Your task to perform on an android device: toggle notifications settings in the gmail app Image 0: 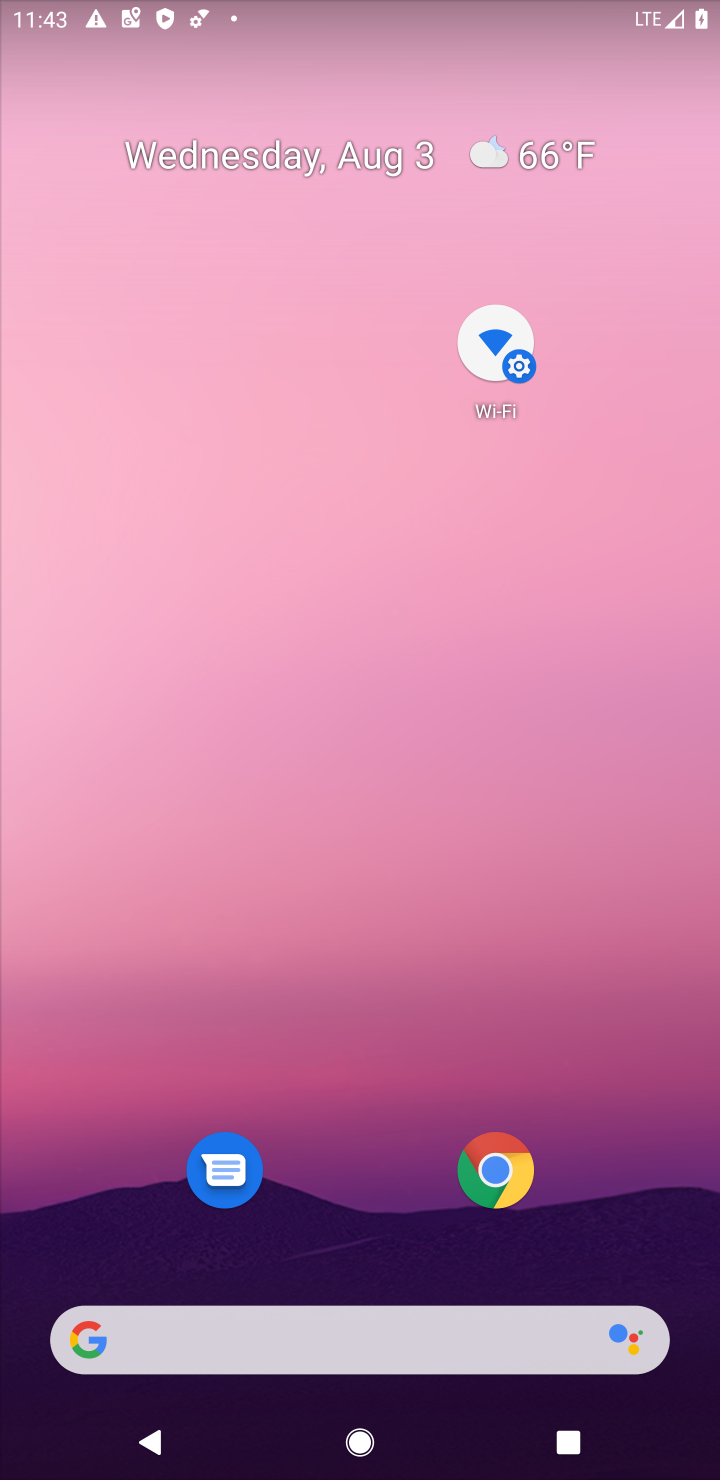
Step 0: click (533, 335)
Your task to perform on an android device: toggle notifications settings in the gmail app Image 1: 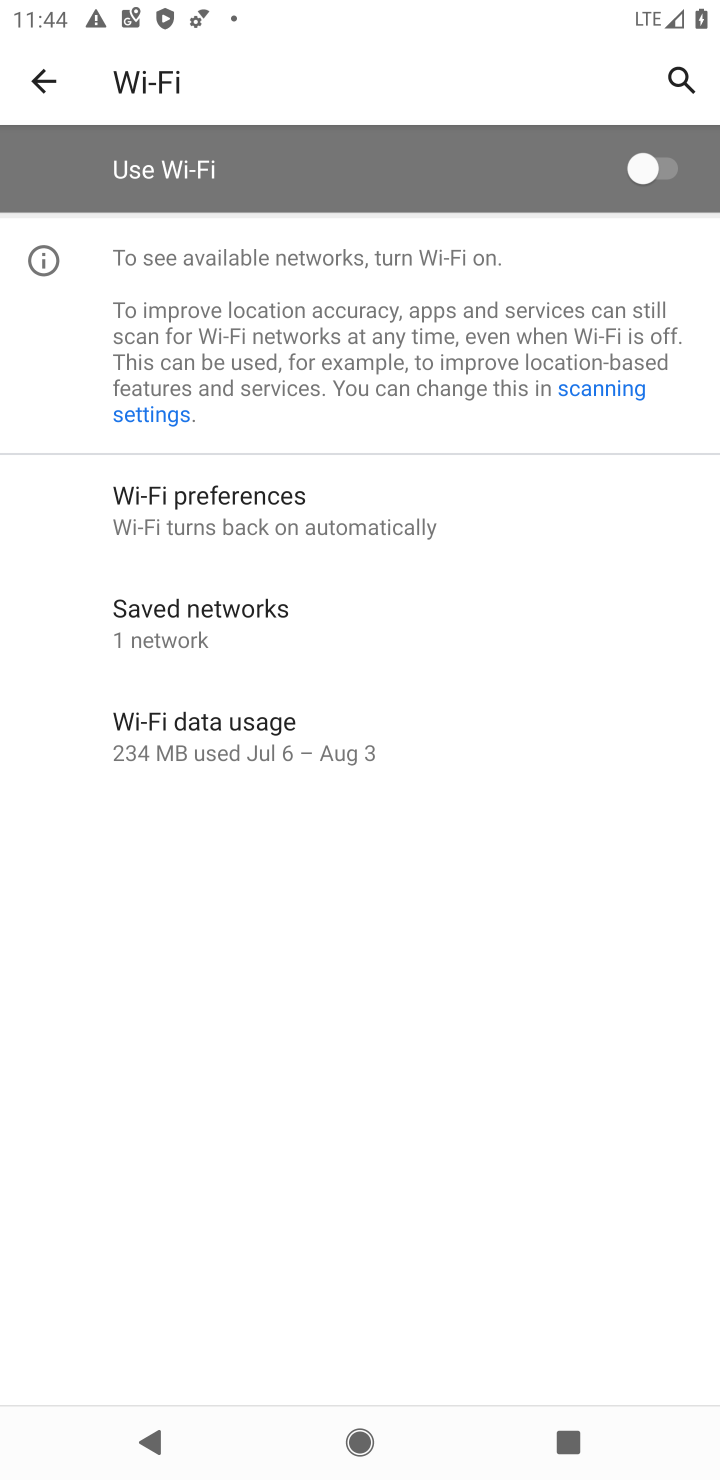
Step 1: drag from (401, 1205) to (417, 379)
Your task to perform on an android device: toggle notifications settings in the gmail app Image 2: 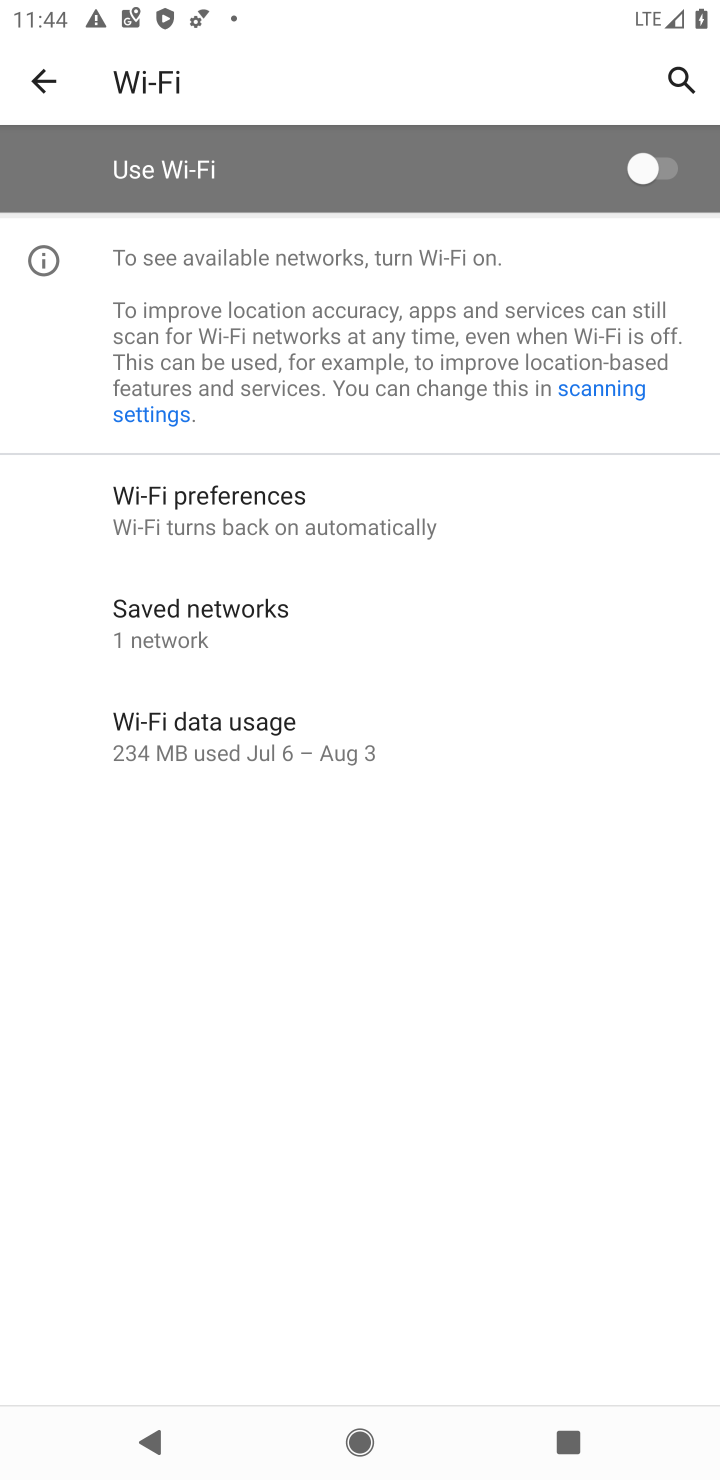
Step 2: press home button
Your task to perform on an android device: toggle notifications settings in the gmail app Image 3: 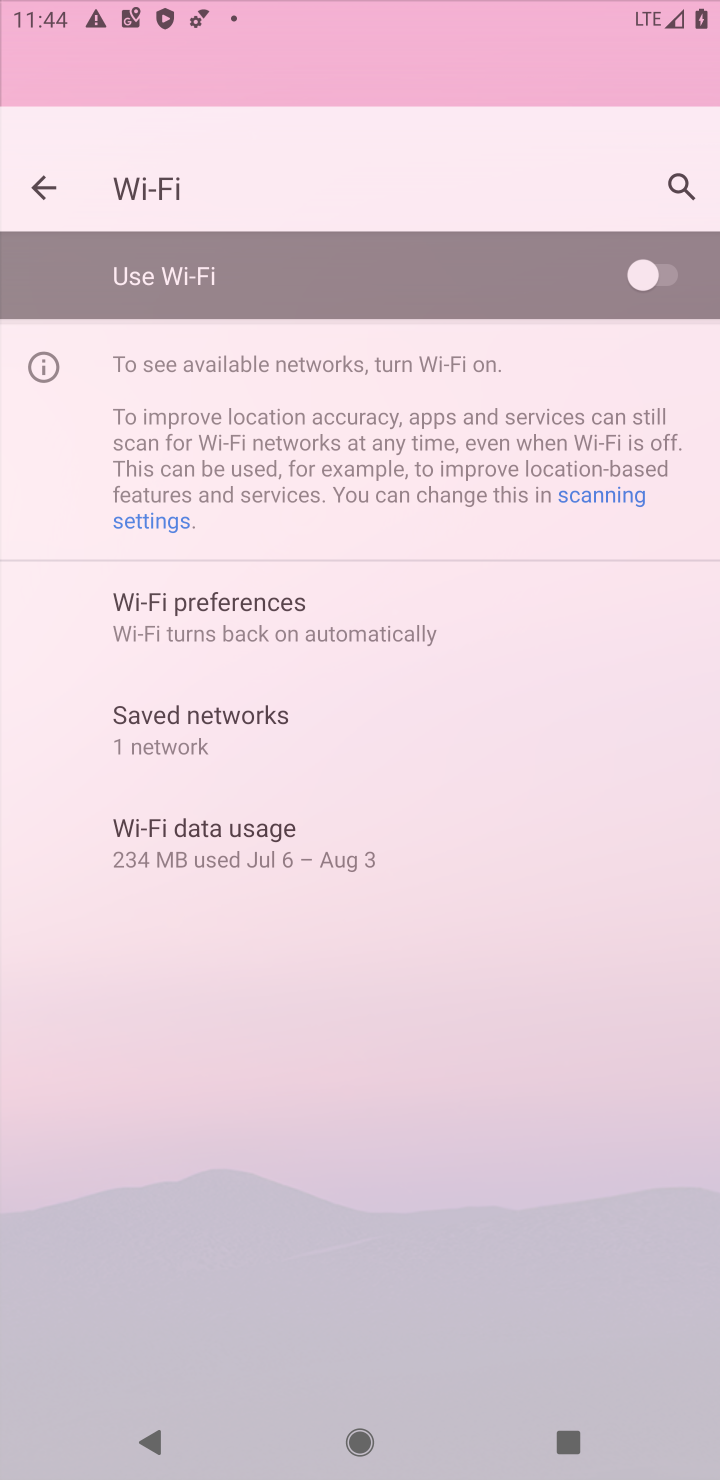
Step 3: click (337, 276)
Your task to perform on an android device: toggle notifications settings in the gmail app Image 4: 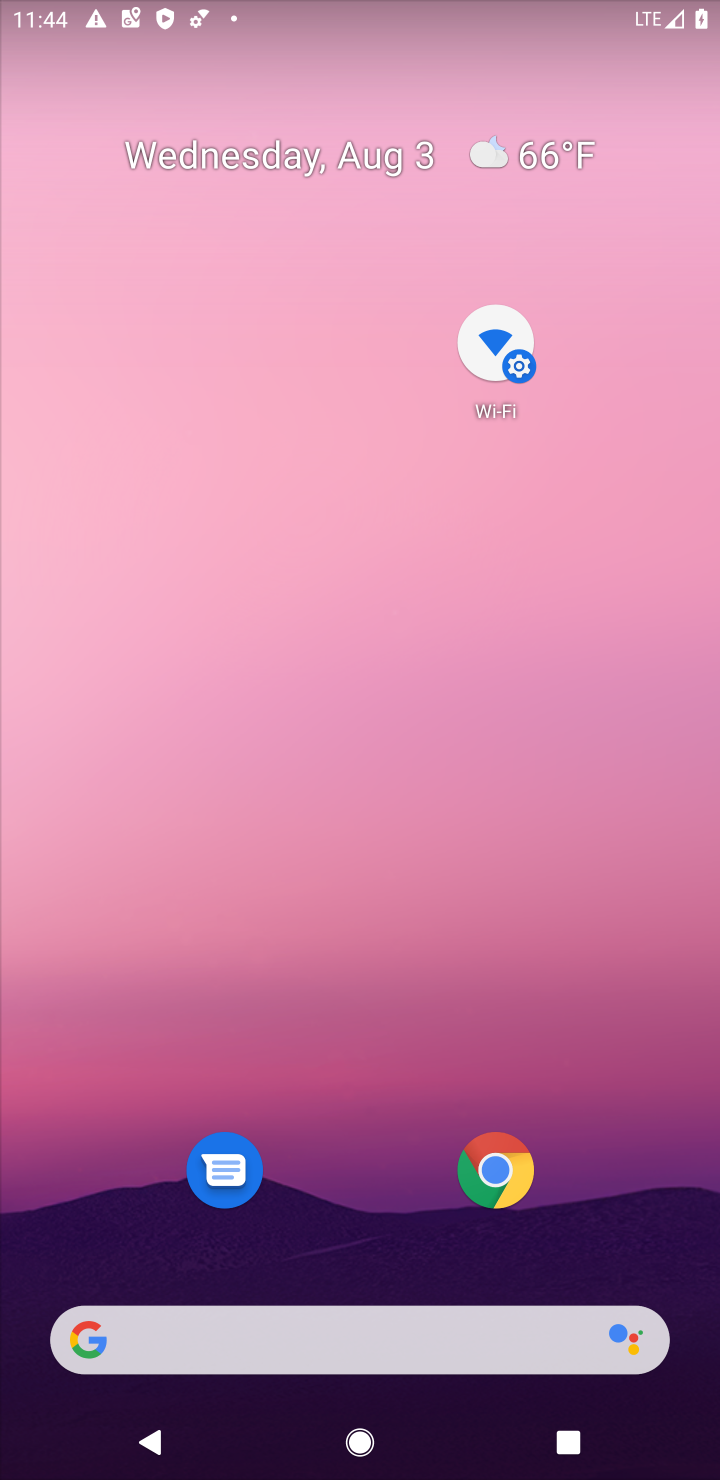
Step 4: drag from (330, 1201) to (324, 519)
Your task to perform on an android device: toggle notifications settings in the gmail app Image 5: 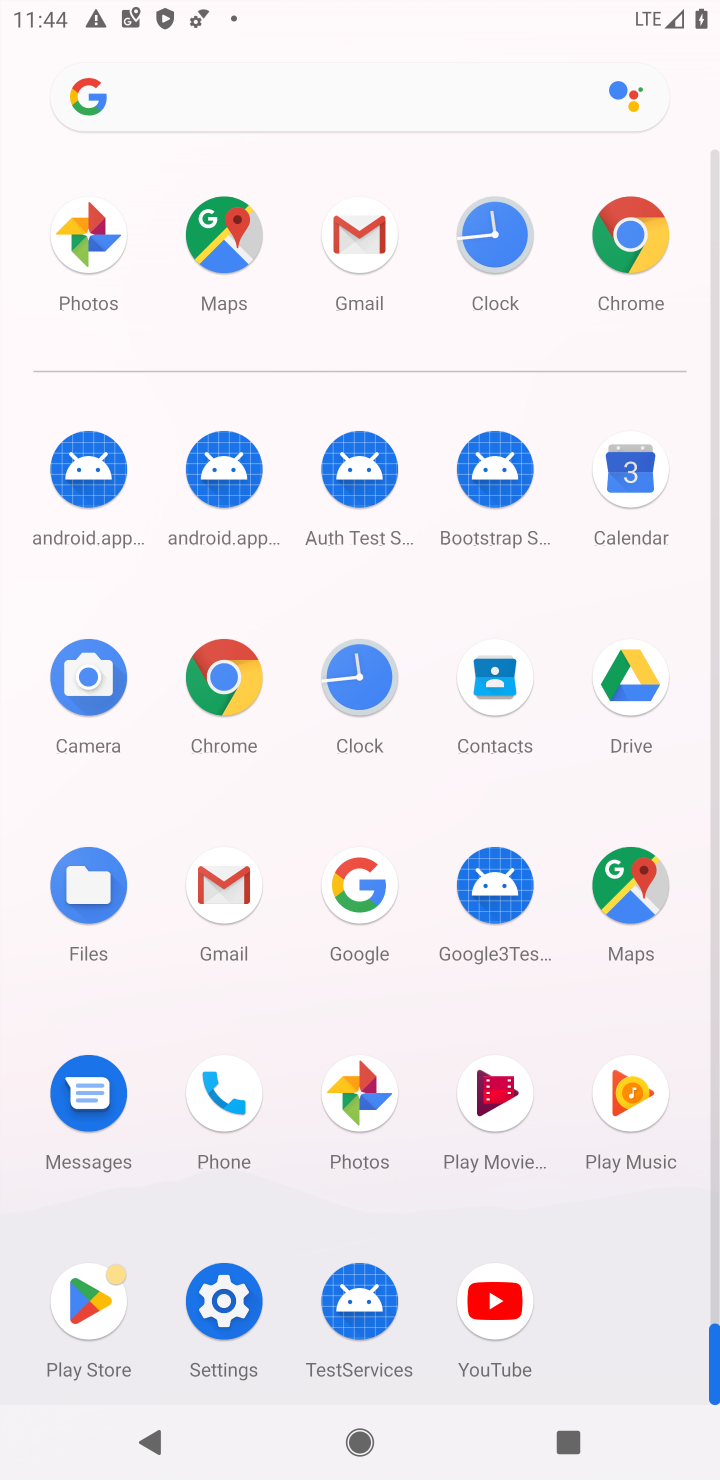
Step 5: drag from (309, 1196) to (340, 351)
Your task to perform on an android device: toggle notifications settings in the gmail app Image 6: 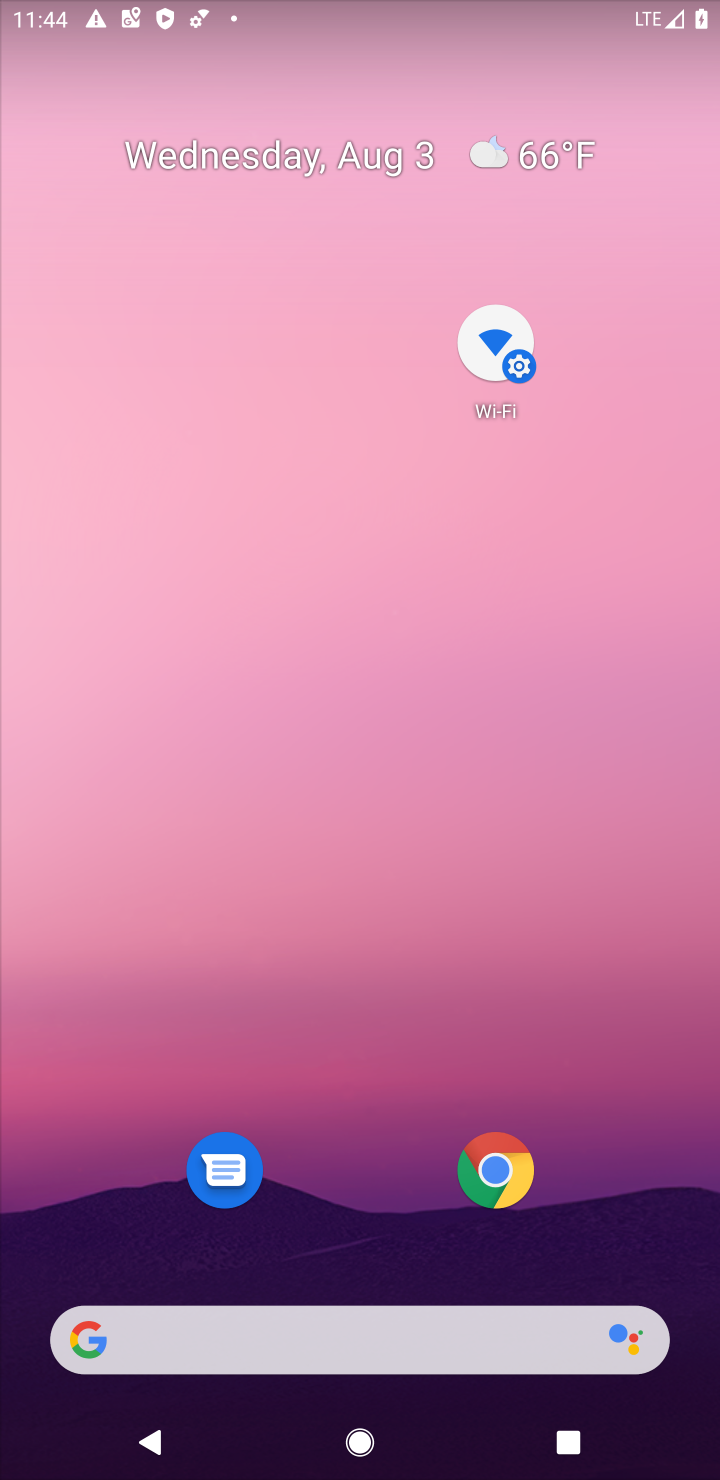
Step 6: drag from (368, 1216) to (351, 483)
Your task to perform on an android device: toggle notifications settings in the gmail app Image 7: 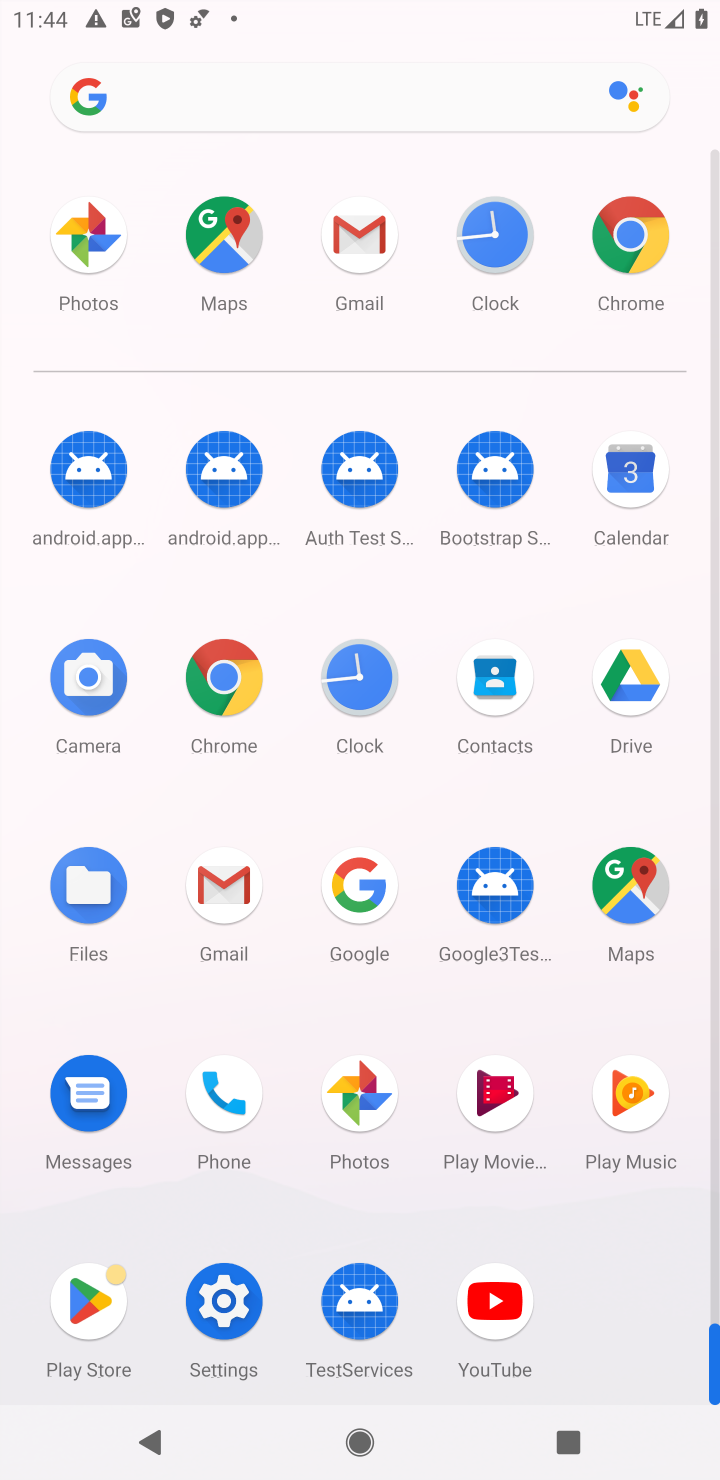
Step 7: click (222, 872)
Your task to perform on an android device: toggle notifications settings in the gmail app Image 8: 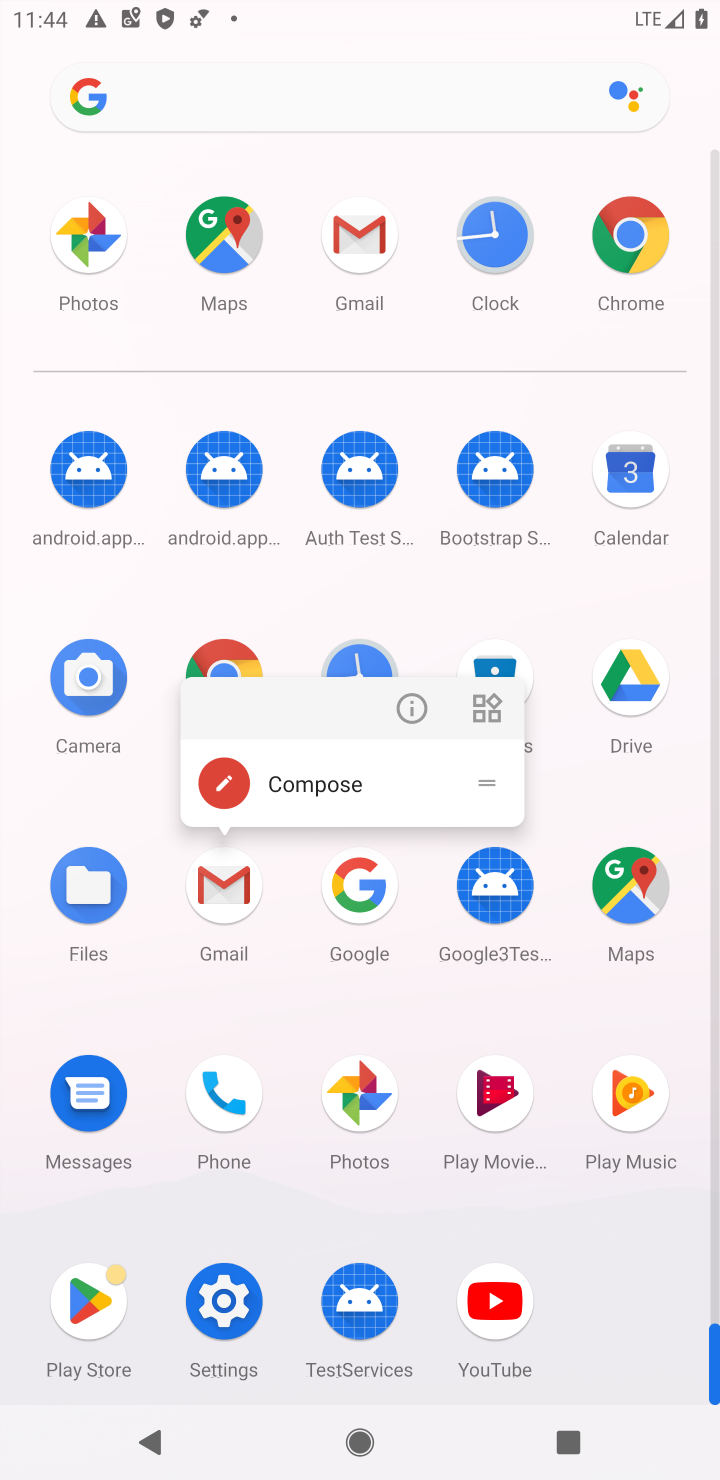
Step 8: click (414, 726)
Your task to perform on an android device: toggle notifications settings in the gmail app Image 9: 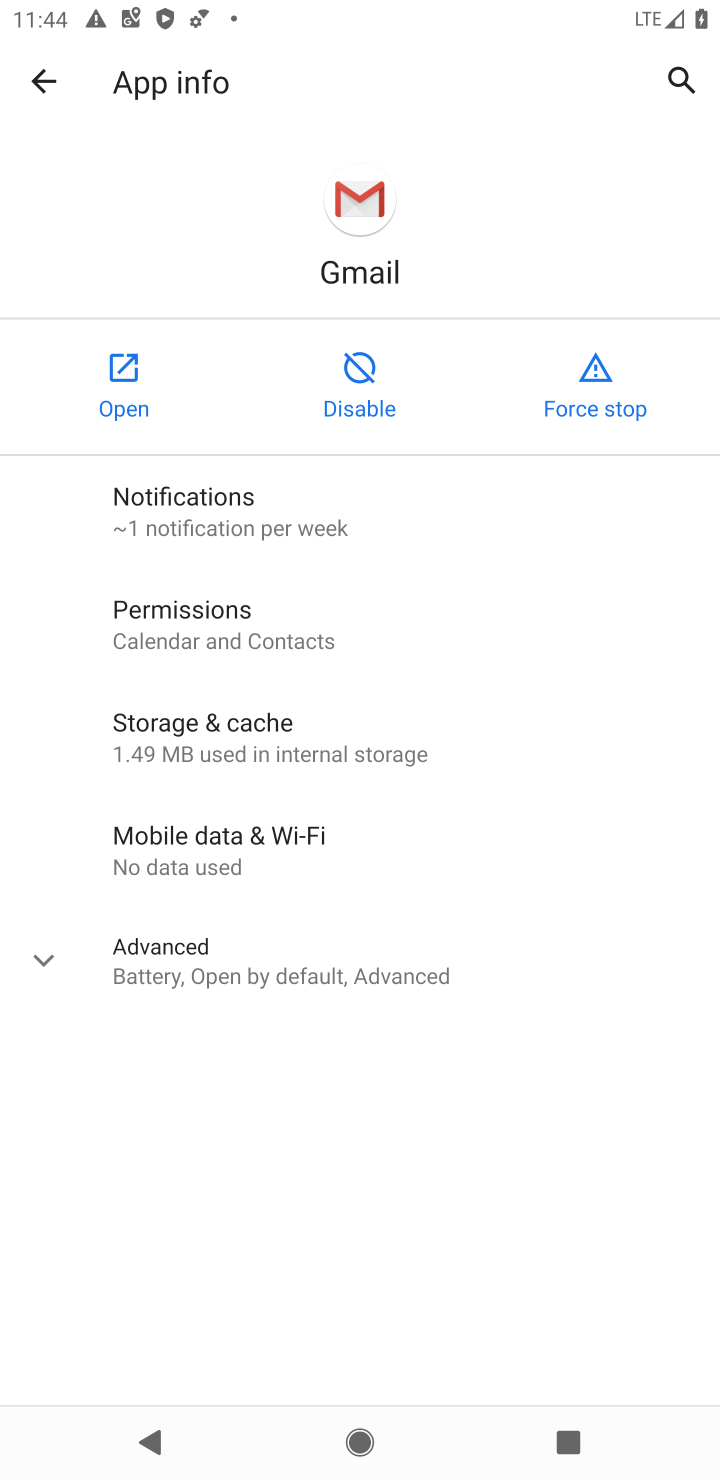
Step 9: click (96, 403)
Your task to perform on an android device: toggle notifications settings in the gmail app Image 10: 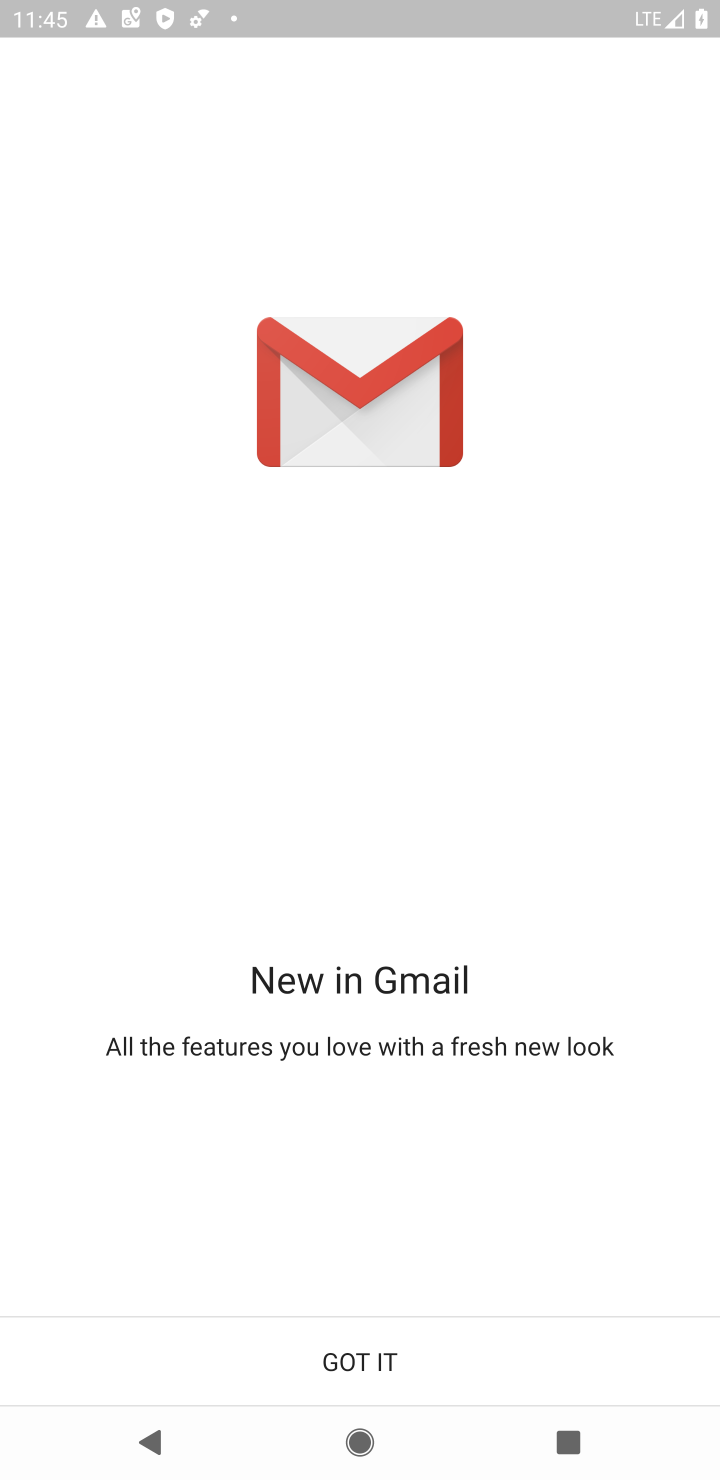
Step 10: click (343, 1364)
Your task to perform on an android device: toggle notifications settings in the gmail app Image 11: 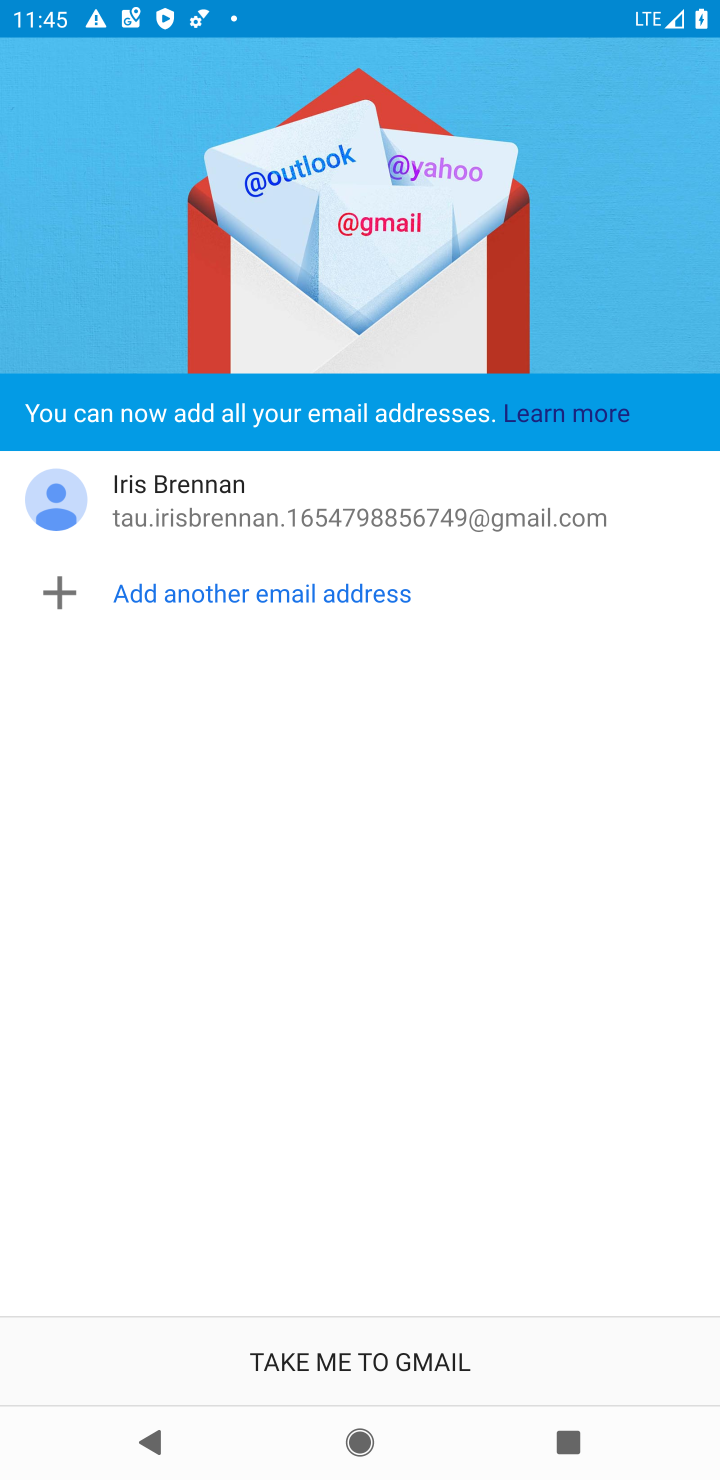
Step 11: click (323, 1381)
Your task to perform on an android device: toggle notifications settings in the gmail app Image 12: 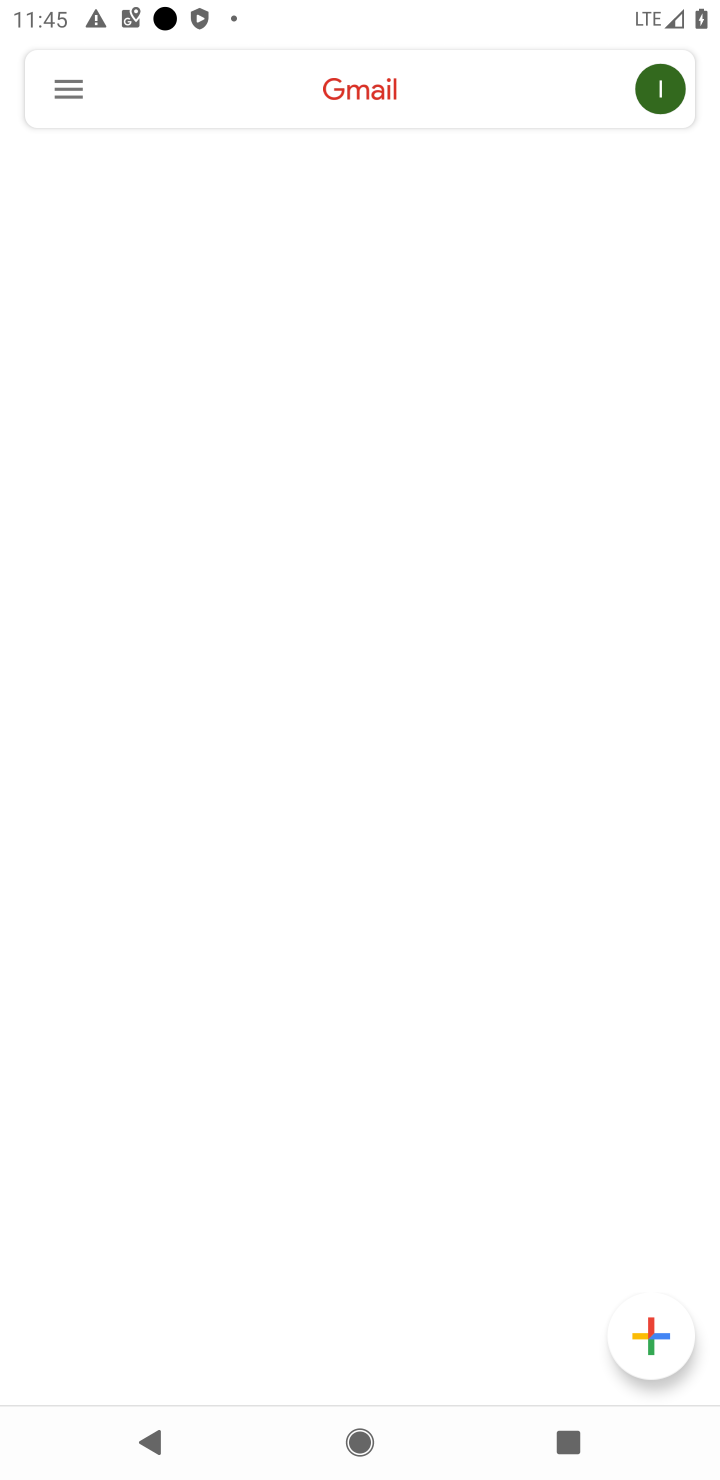
Step 12: drag from (523, 673) to (539, 500)
Your task to perform on an android device: toggle notifications settings in the gmail app Image 13: 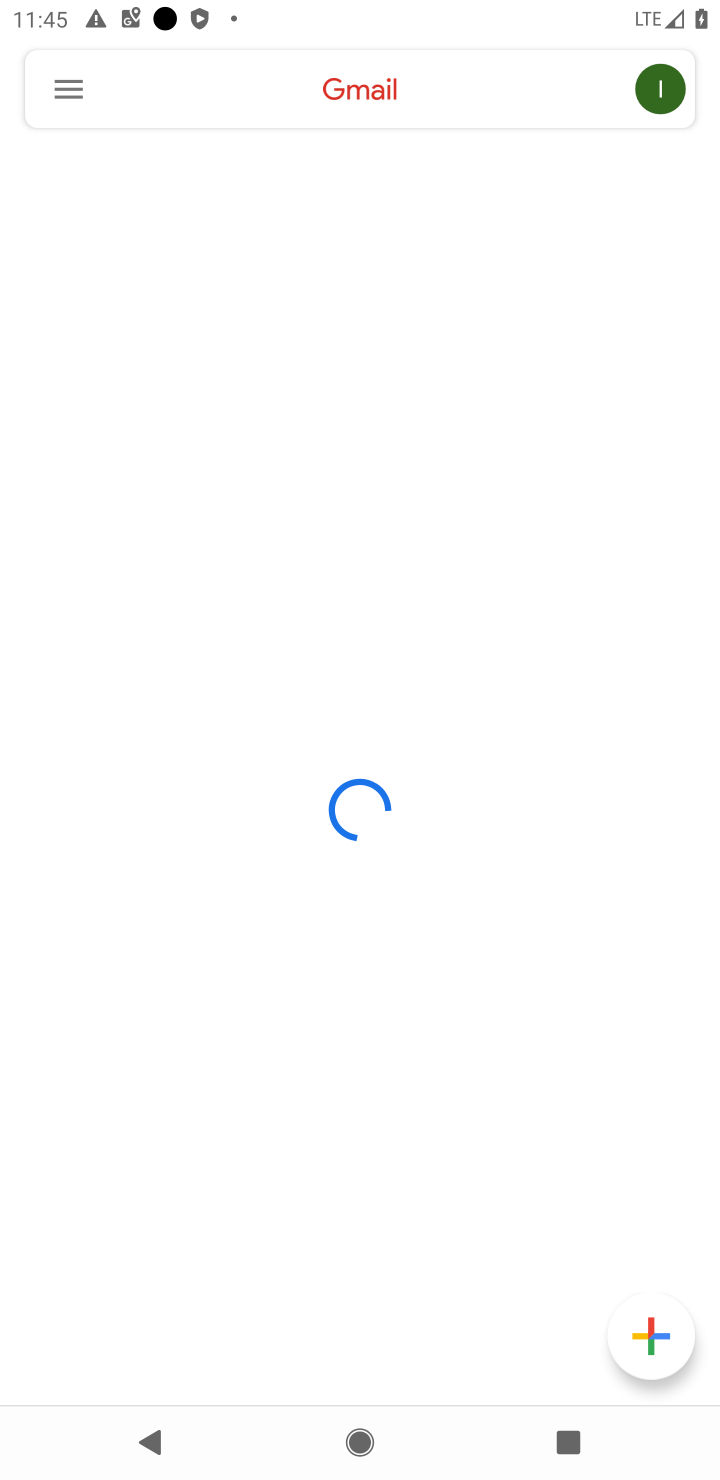
Step 13: drag from (434, 419) to (385, 860)
Your task to perform on an android device: toggle notifications settings in the gmail app Image 14: 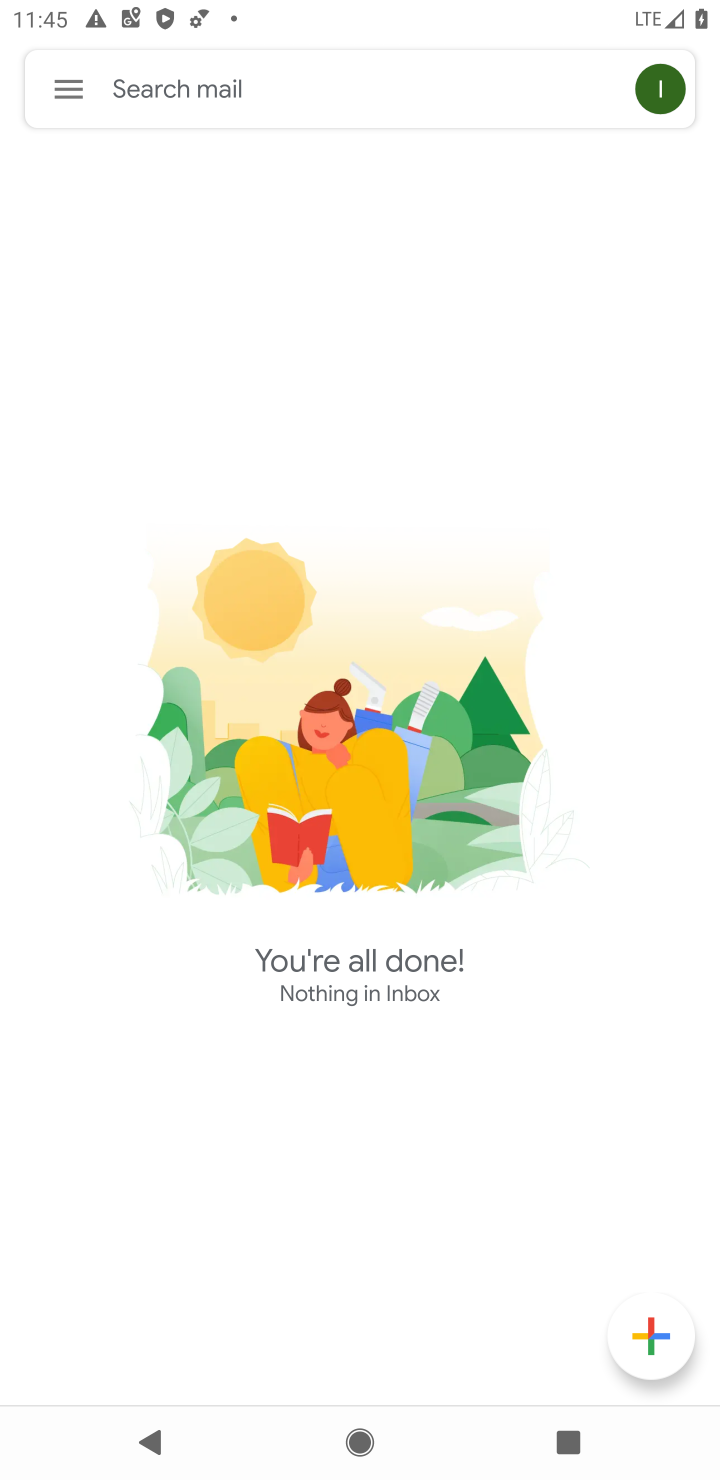
Step 14: drag from (424, 1217) to (431, 630)
Your task to perform on an android device: toggle notifications settings in the gmail app Image 15: 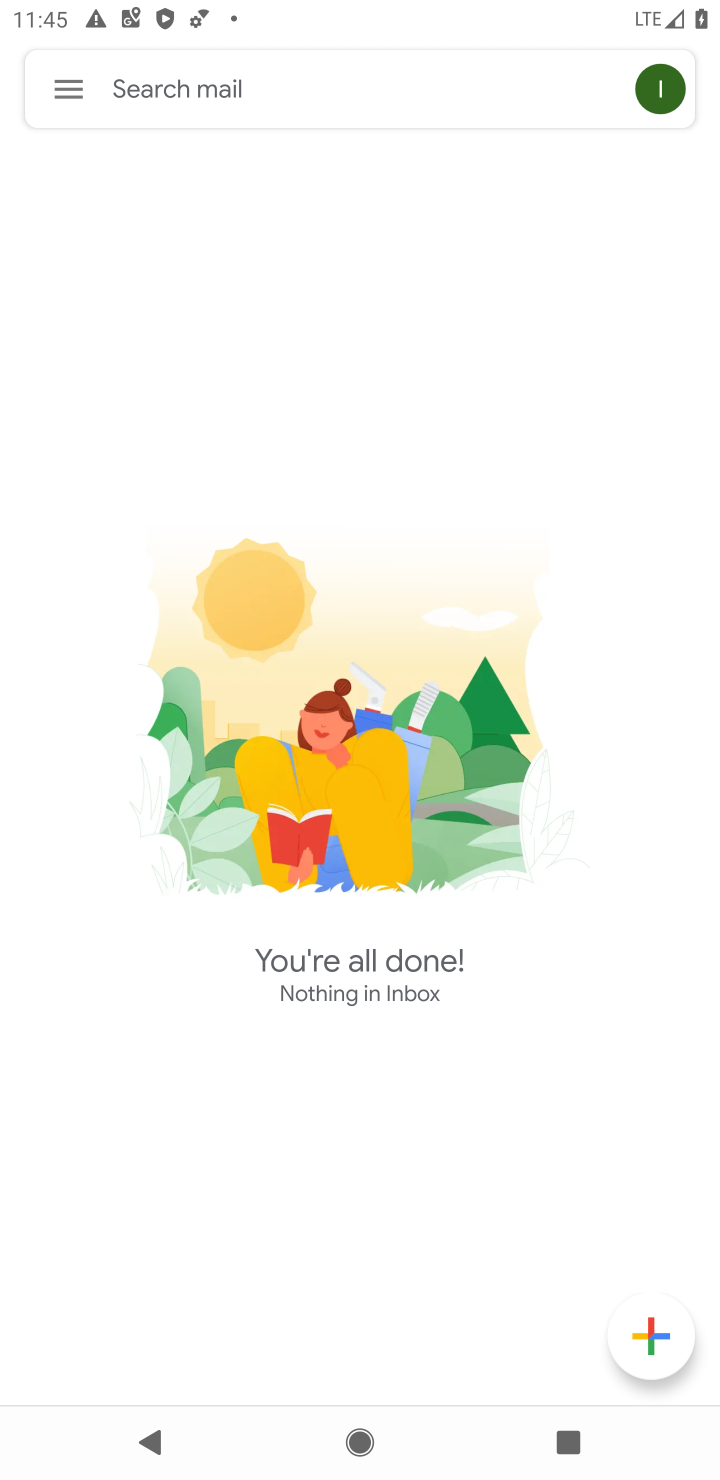
Step 15: click (61, 89)
Your task to perform on an android device: toggle notifications settings in the gmail app Image 16: 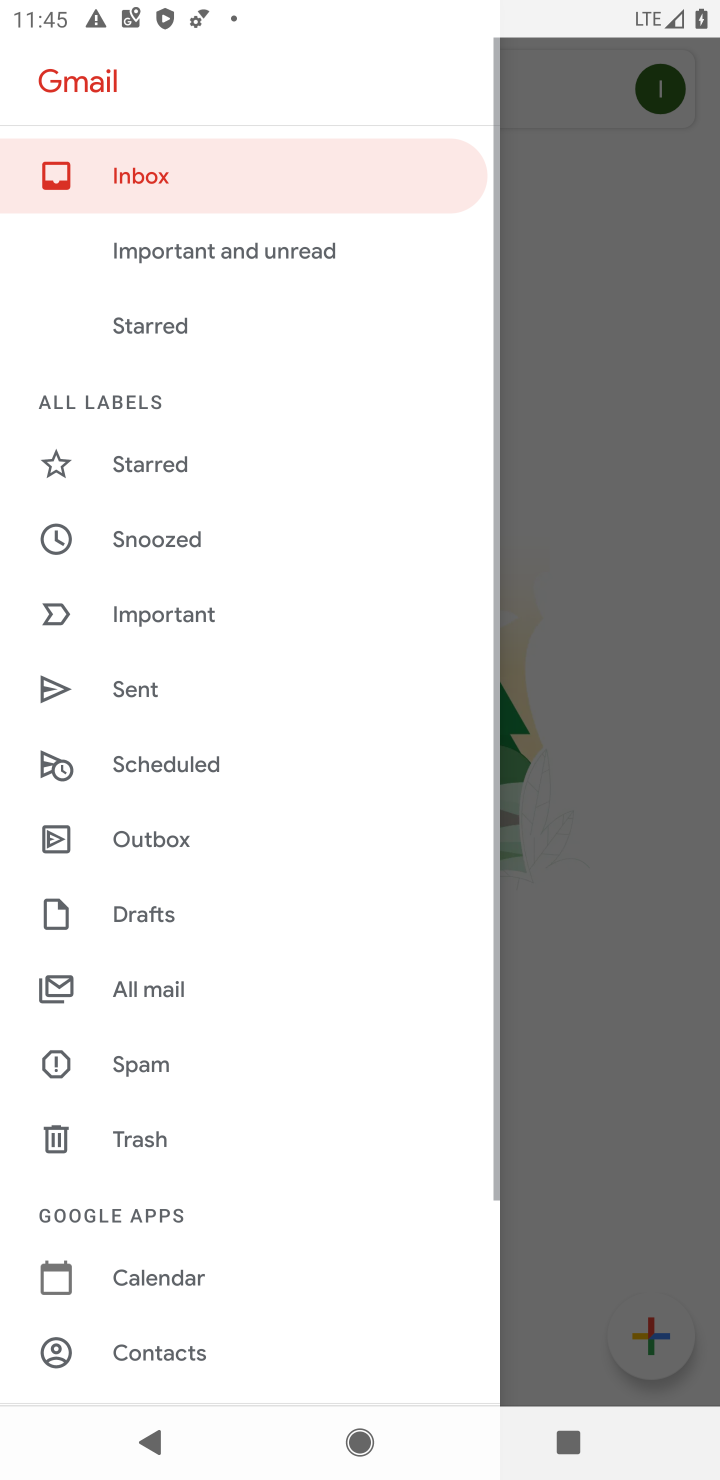
Step 16: drag from (297, 1204) to (426, 248)
Your task to perform on an android device: toggle notifications settings in the gmail app Image 17: 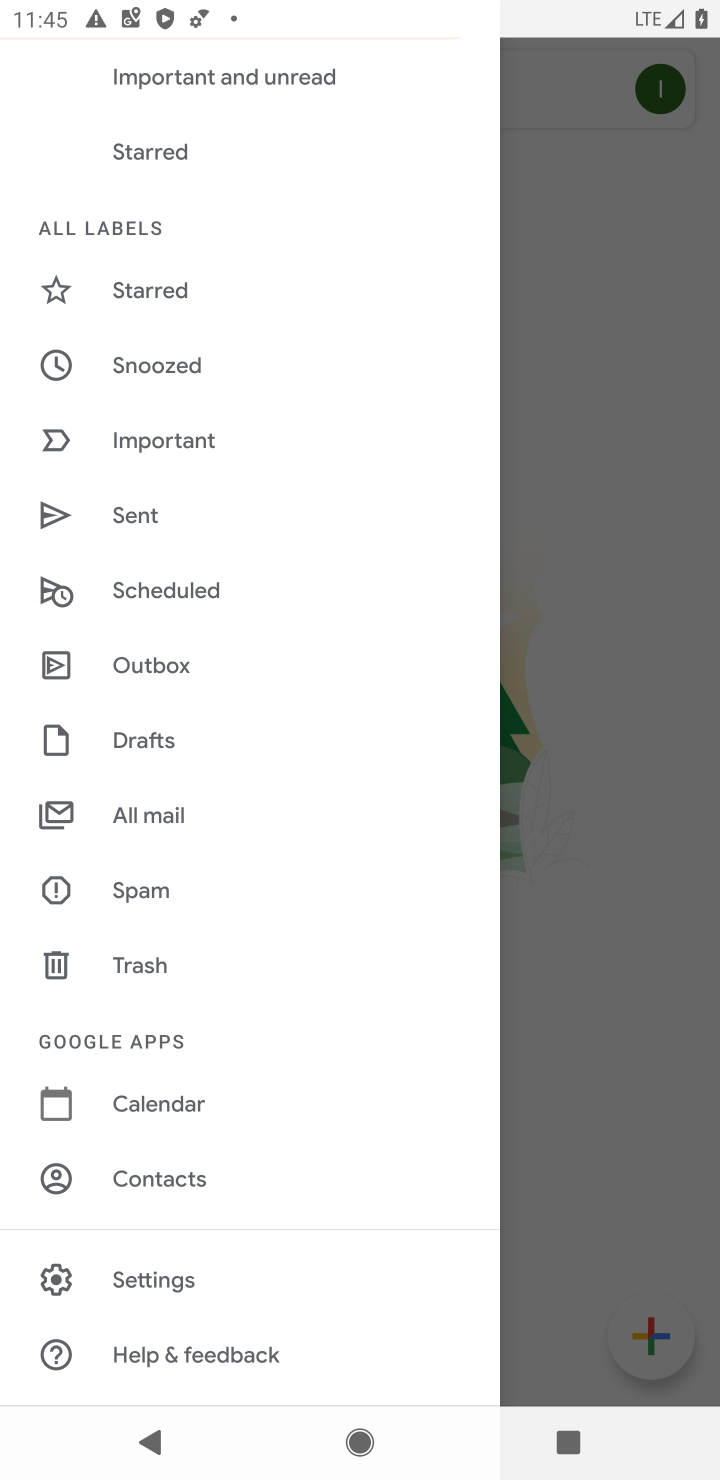
Step 17: click (119, 1292)
Your task to perform on an android device: toggle notifications settings in the gmail app Image 18: 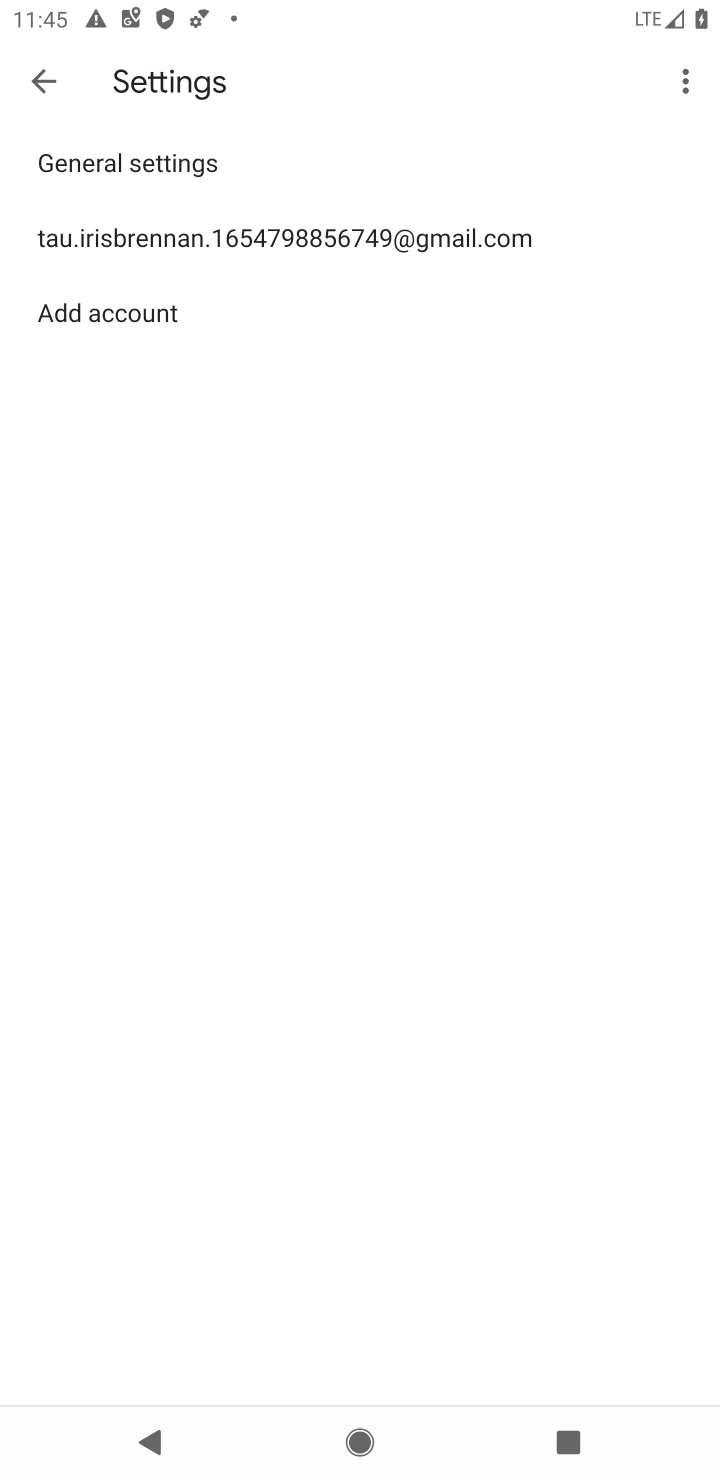
Step 18: click (350, 241)
Your task to perform on an android device: toggle notifications settings in the gmail app Image 19: 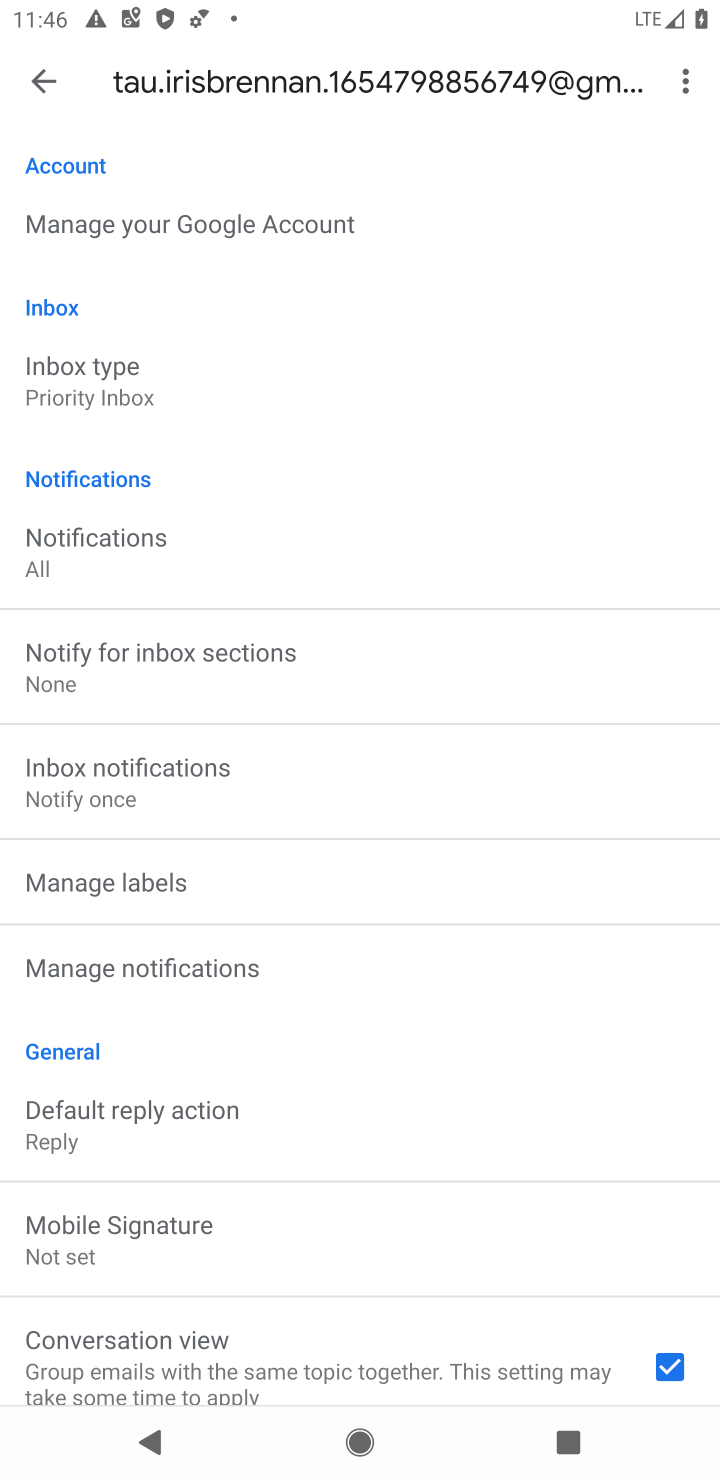
Step 19: click (240, 956)
Your task to perform on an android device: toggle notifications settings in the gmail app Image 20: 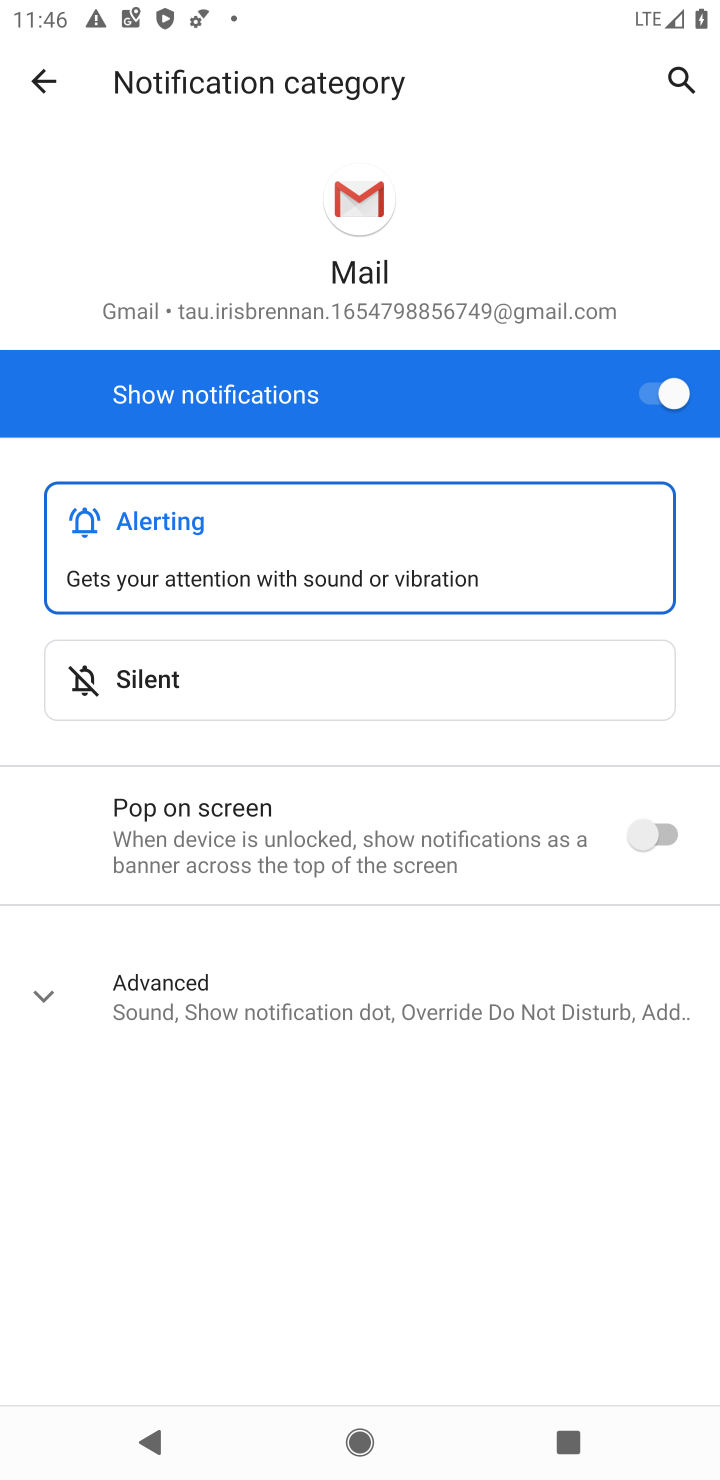
Step 20: click (134, 1025)
Your task to perform on an android device: toggle notifications settings in the gmail app Image 21: 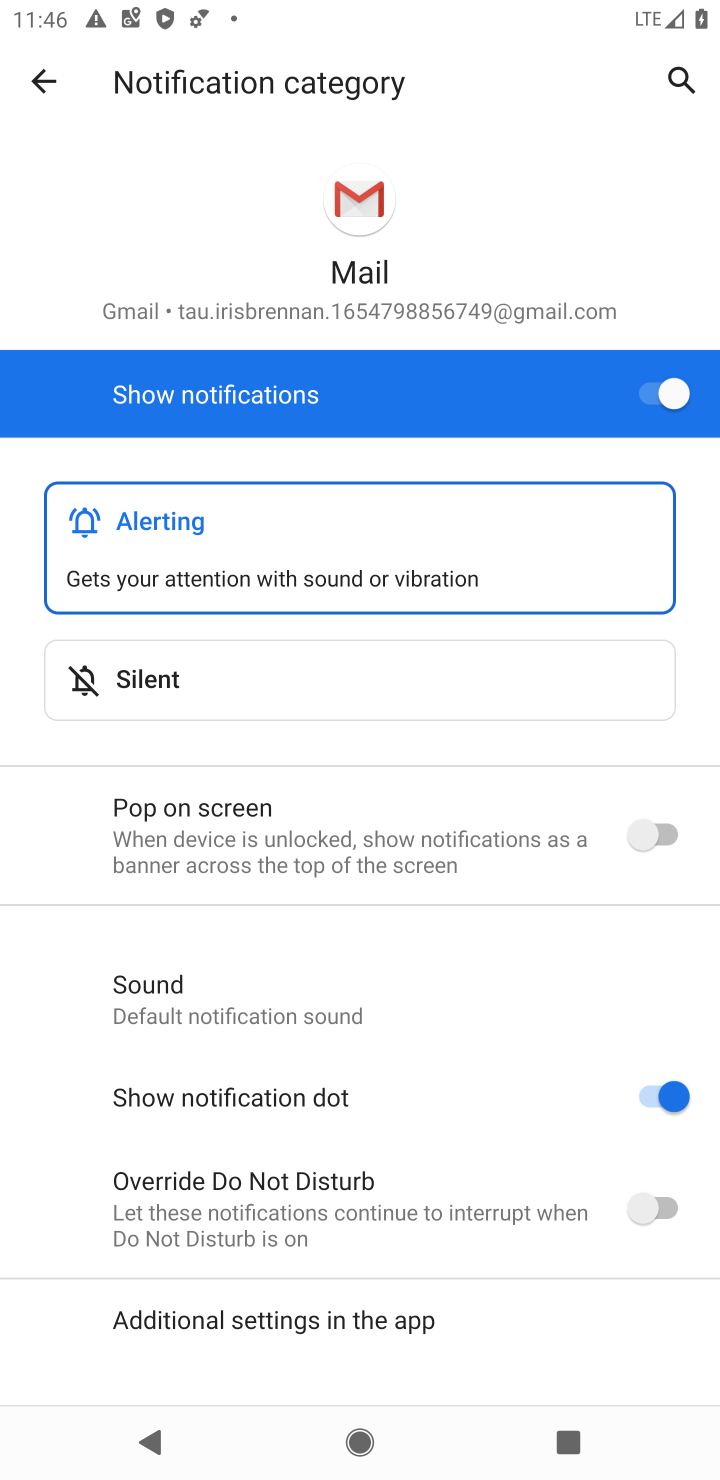
Step 21: drag from (225, 1162) to (350, 411)
Your task to perform on an android device: toggle notifications settings in the gmail app Image 22: 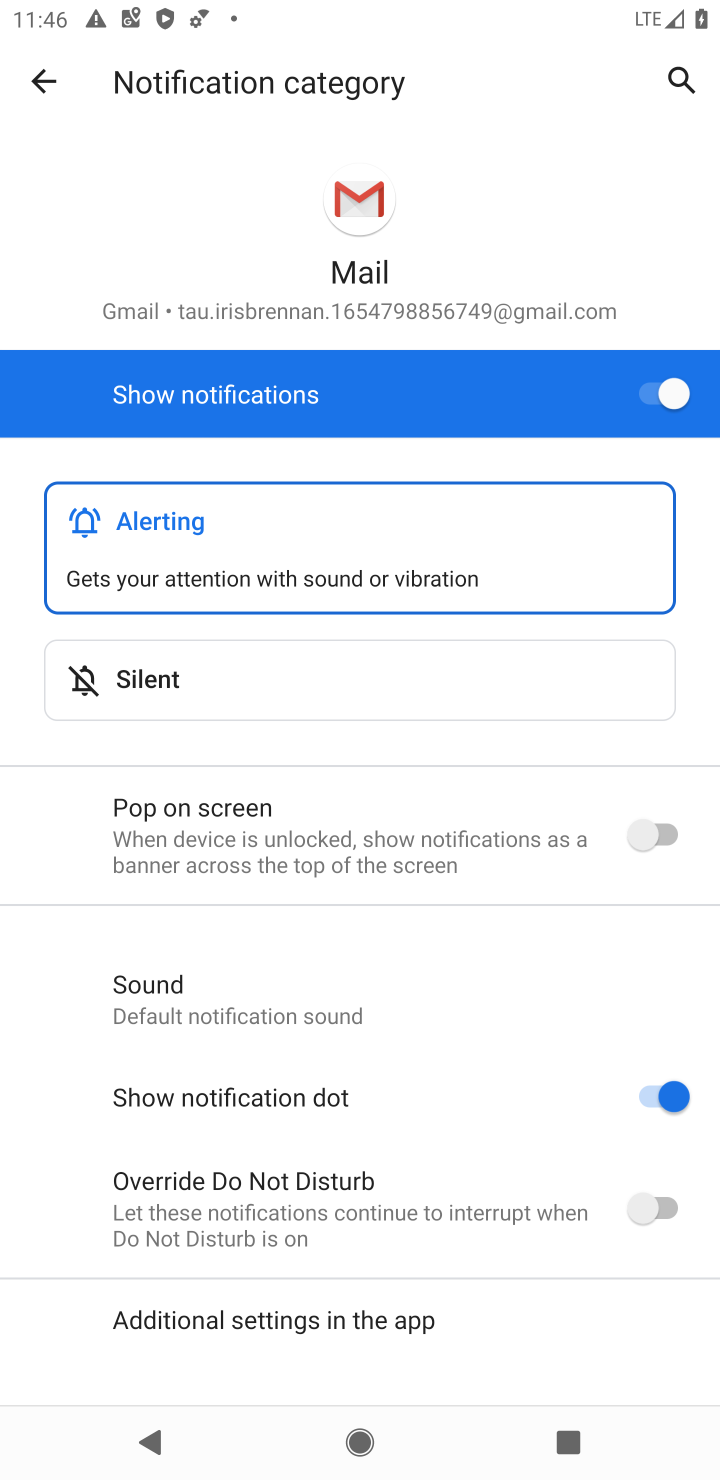
Step 22: drag from (387, 883) to (406, 600)
Your task to perform on an android device: toggle notifications settings in the gmail app Image 23: 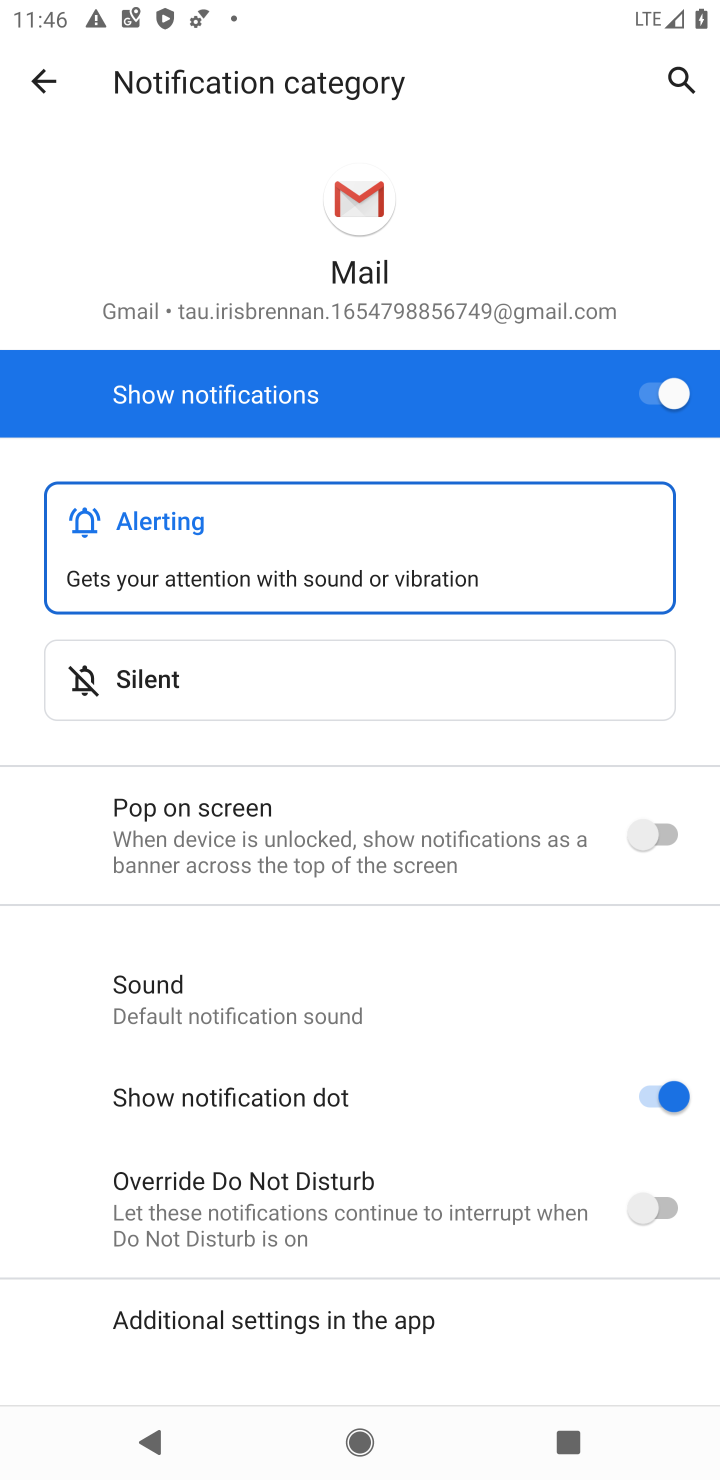
Step 23: click (624, 389)
Your task to perform on an android device: toggle notifications settings in the gmail app Image 24: 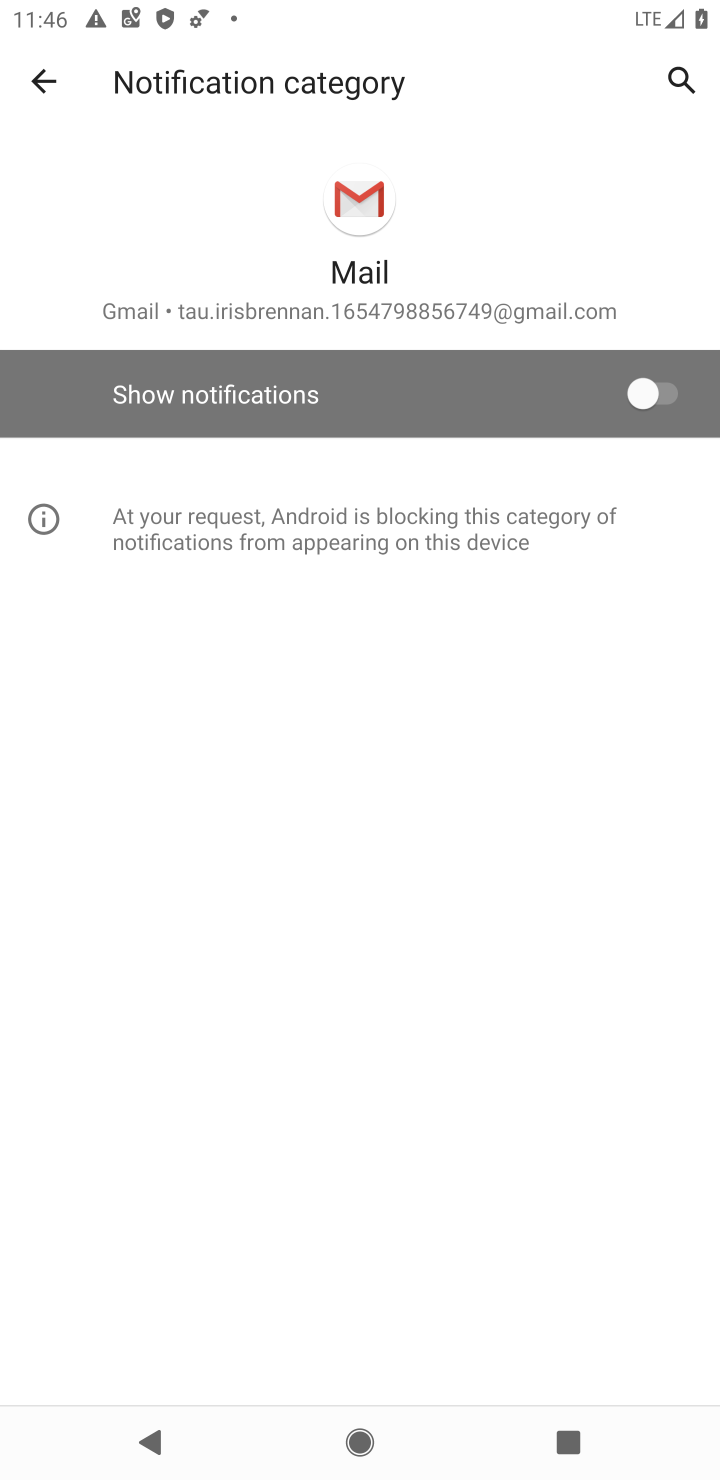
Step 24: task complete